Your task to perform on an android device: turn off notifications settings in the gmail app Image 0: 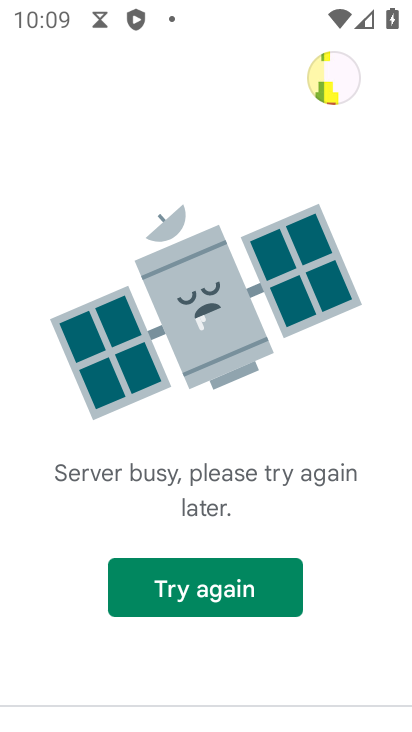
Step 0: press home button
Your task to perform on an android device: turn off notifications settings in the gmail app Image 1: 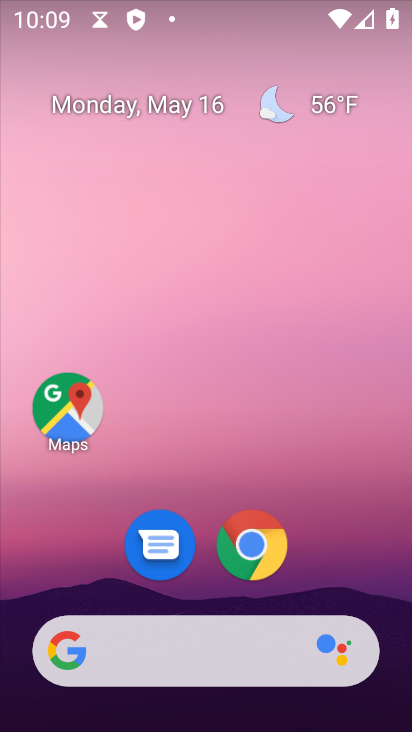
Step 1: drag from (338, 477) to (372, 208)
Your task to perform on an android device: turn off notifications settings in the gmail app Image 2: 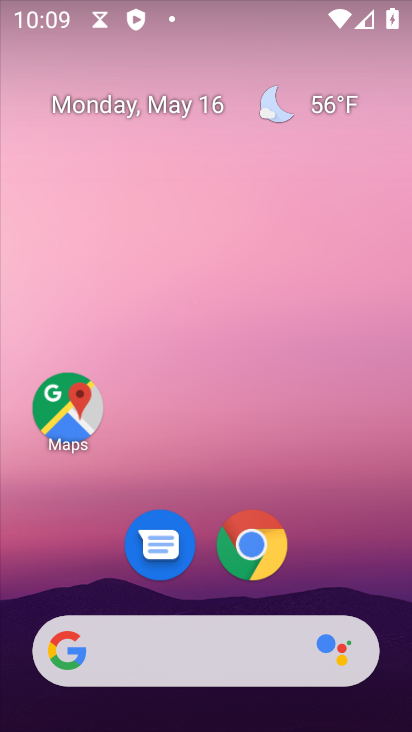
Step 2: drag from (340, 575) to (370, 116)
Your task to perform on an android device: turn off notifications settings in the gmail app Image 3: 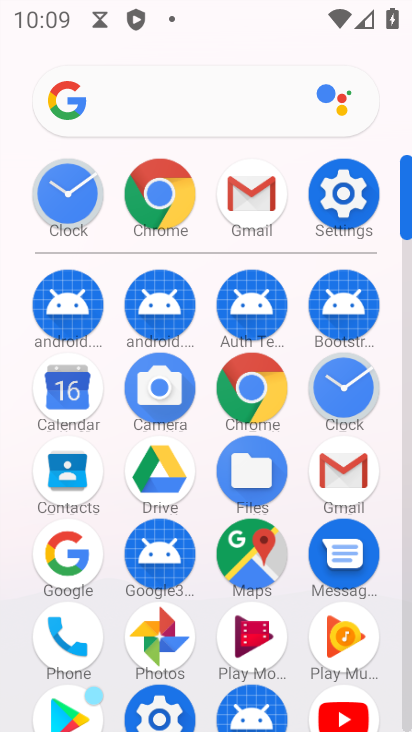
Step 3: click (359, 488)
Your task to perform on an android device: turn off notifications settings in the gmail app Image 4: 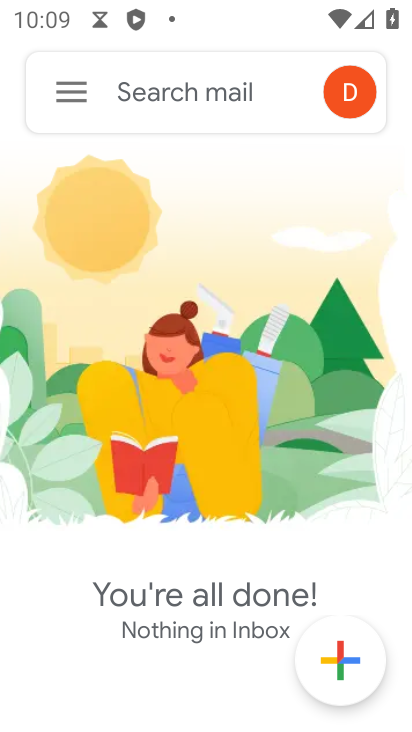
Step 4: click (76, 99)
Your task to perform on an android device: turn off notifications settings in the gmail app Image 5: 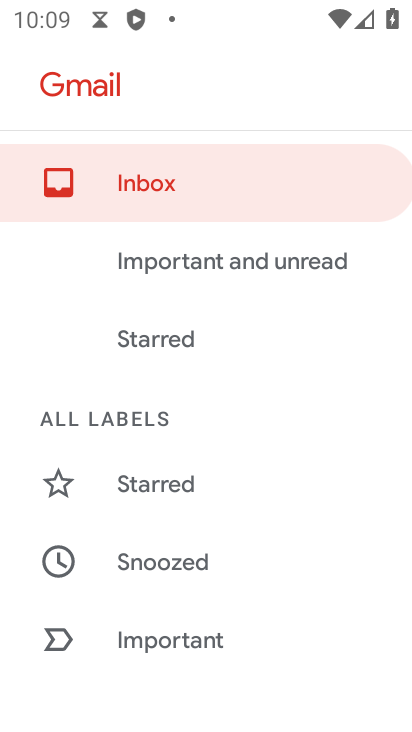
Step 5: drag from (159, 644) to (210, 183)
Your task to perform on an android device: turn off notifications settings in the gmail app Image 6: 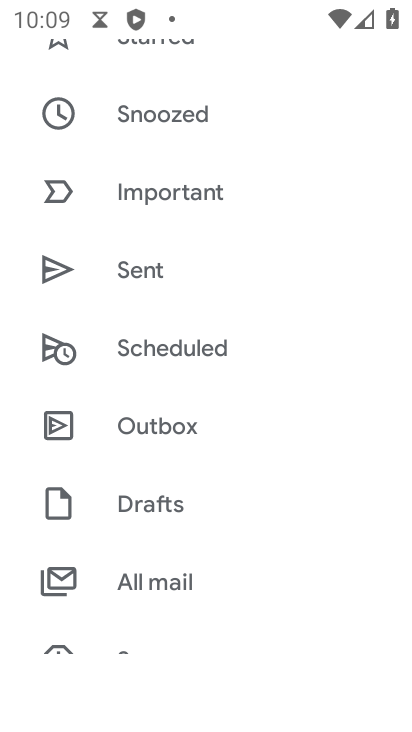
Step 6: drag from (193, 600) to (284, 184)
Your task to perform on an android device: turn off notifications settings in the gmail app Image 7: 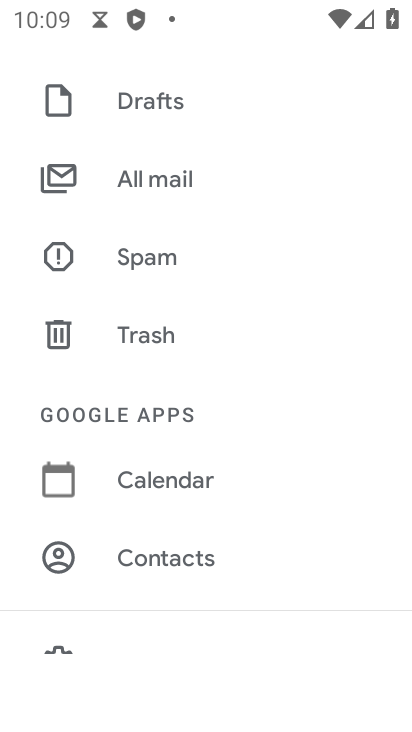
Step 7: drag from (243, 569) to (293, 202)
Your task to perform on an android device: turn off notifications settings in the gmail app Image 8: 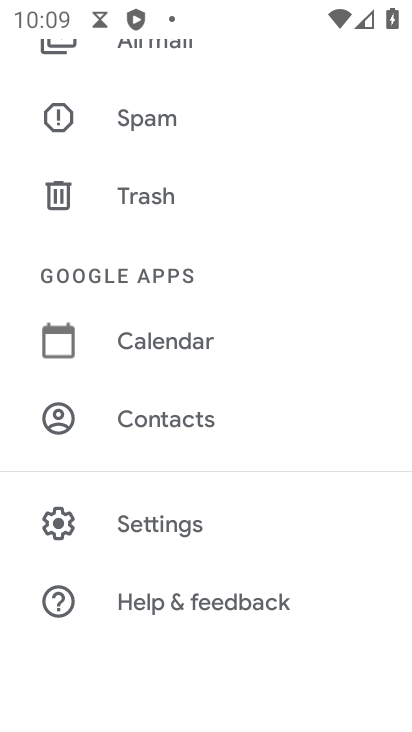
Step 8: click (167, 526)
Your task to perform on an android device: turn off notifications settings in the gmail app Image 9: 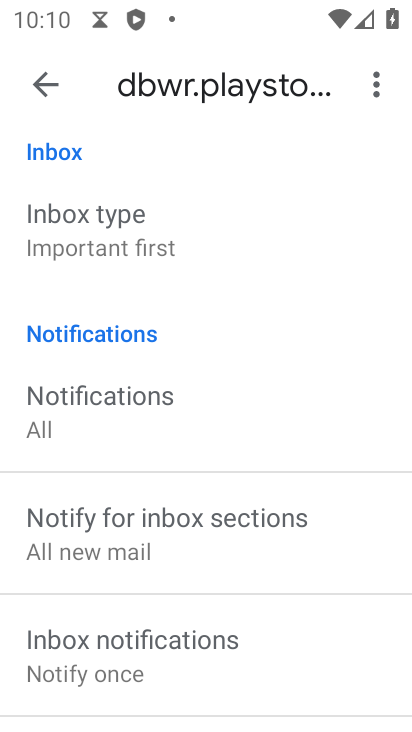
Step 9: click (229, 679)
Your task to perform on an android device: turn off notifications settings in the gmail app Image 10: 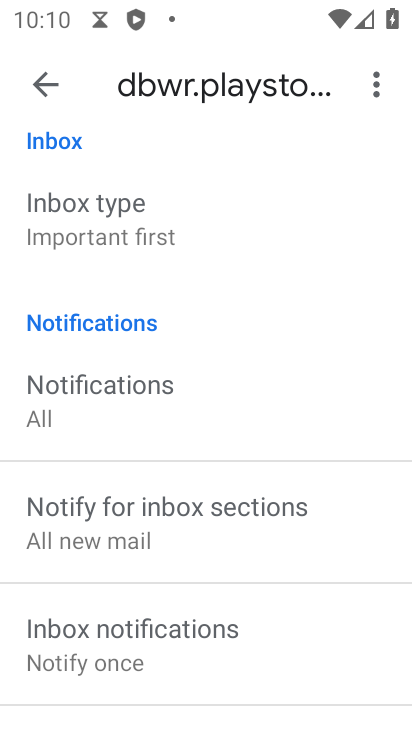
Step 10: click (191, 392)
Your task to perform on an android device: turn off notifications settings in the gmail app Image 11: 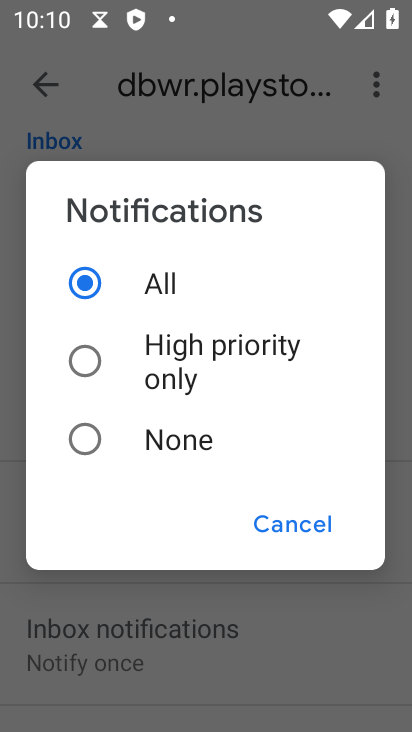
Step 11: click (156, 438)
Your task to perform on an android device: turn off notifications settings in the gmail app Image 12: 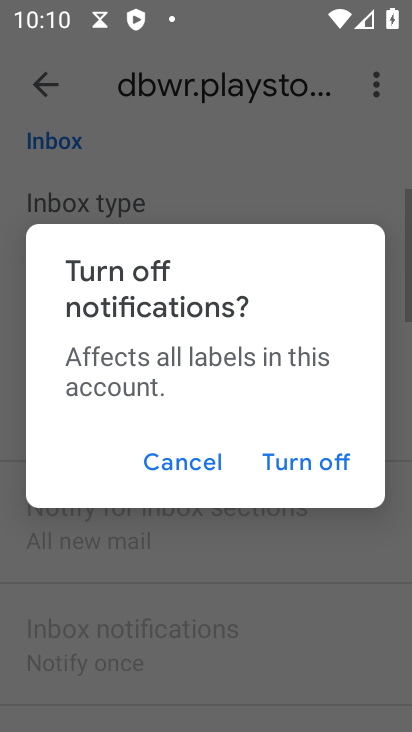
Step 12: click (313, 465)
Your task to perform on an android device: turn off notifications settings in the gmail app Image 13: 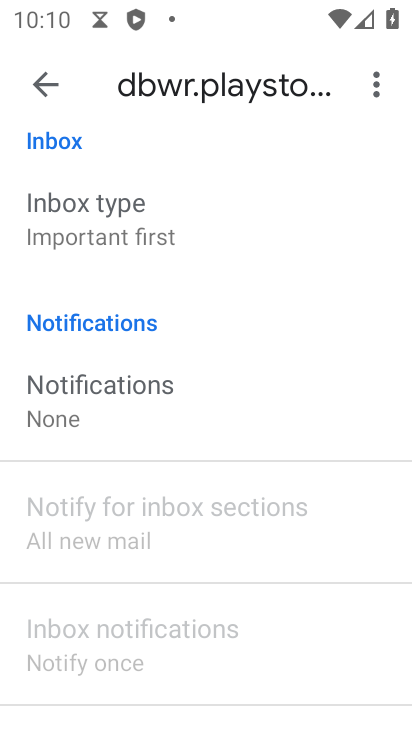
Step 13: task complete